Your task to perform on an android device: toggle javascript in the chrome app Image 0: 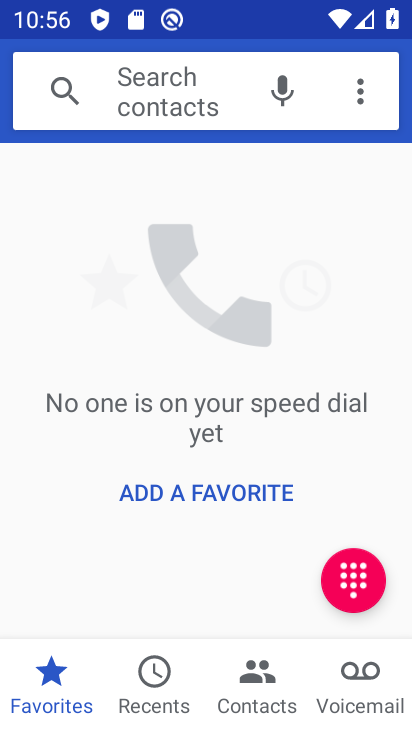
Step 0: press home button
Your task to perform on an android device: toggle javascript in the chrome app Image 1: 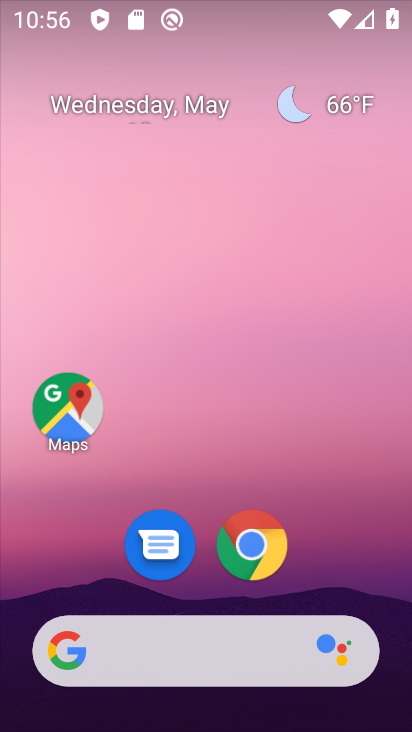
Step 1: click (263, 534)
Your task to perform on an android device: toggle javascript in the chrome app Image 2: 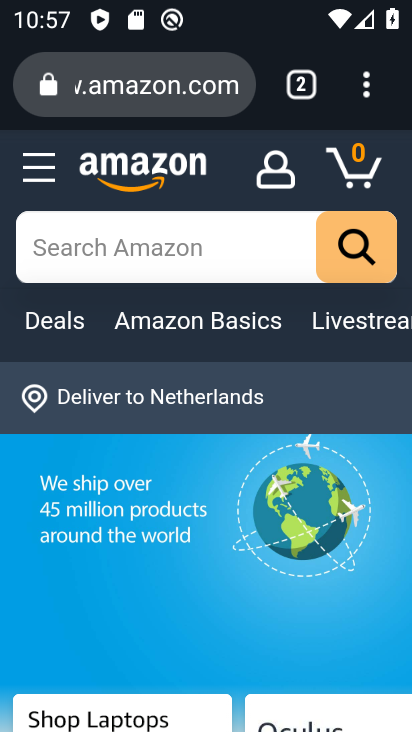
Step 2: click (367, 86)
Your task to perform on an android device: toggle javascript in the chrome app Image 3: 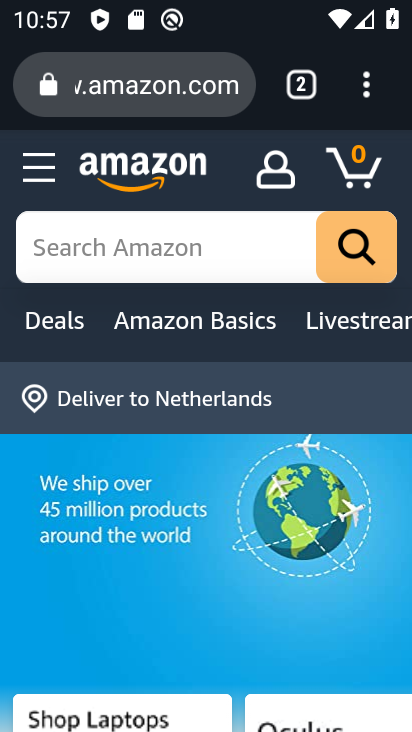
Step 3: click (361, 87)
Your task to perform on an android device: toggle javascript in the chrome app Image 4: 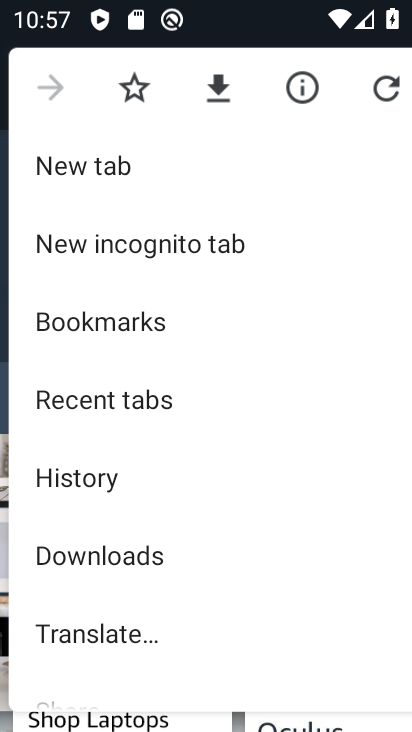
Step 4: drag from (251, 652) to (243, 291)
Your task to perform on an android device: toggle javascript in the chrome app Image 5: 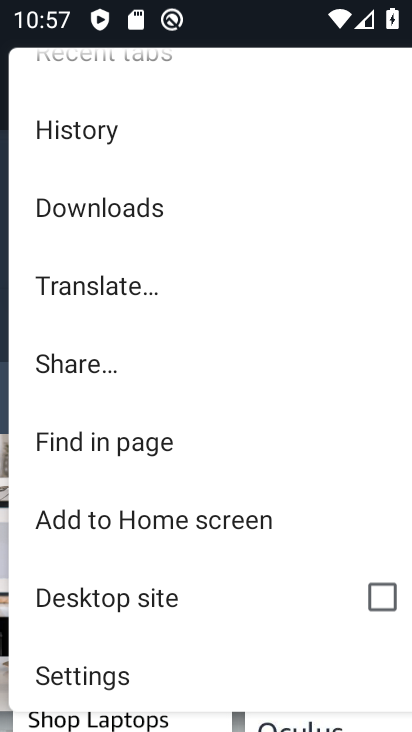
Step 5: click (125, 677)
Your task to perform on an android device: toggle javascript in the chrome app Image 6: 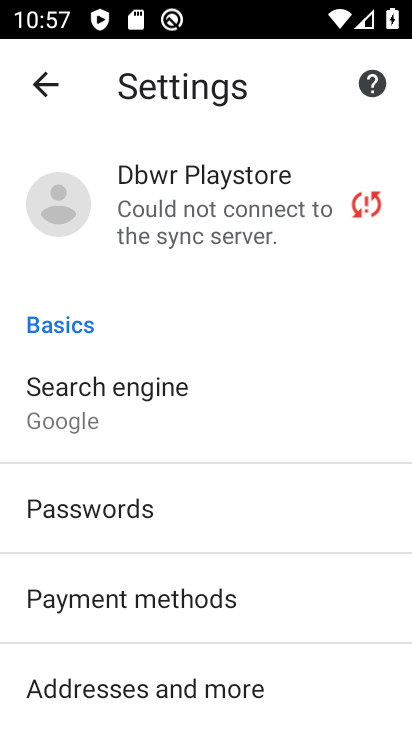
Step 6: drag from (275, 682) to (241, 227)
Your task to perform on an android device: toggle javascript in the chrome app Image 7: 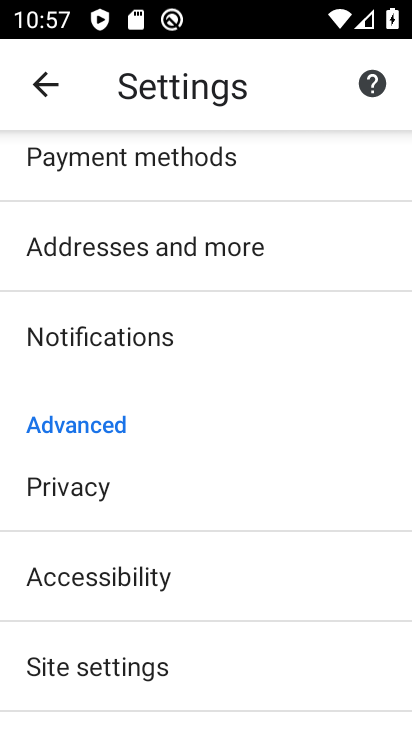
Step 7: click (106, 661)
Your task to perform on an android device: toggle javascript in the chrome app Image 8: 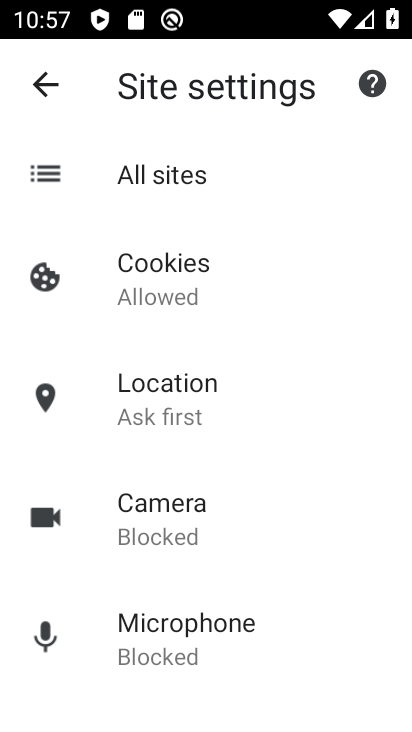
Step 8: drag from (222, 713) to (290, 290)
Your task to perform on an android device: toggle javascript in the chrome app Image 9: 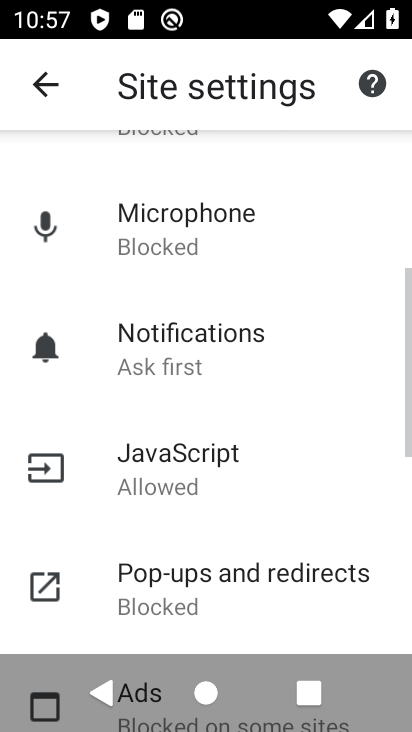
Step 9: click (243, 461)
Your task to perform on an android device: toggle javascript in the chrome app Image 10: 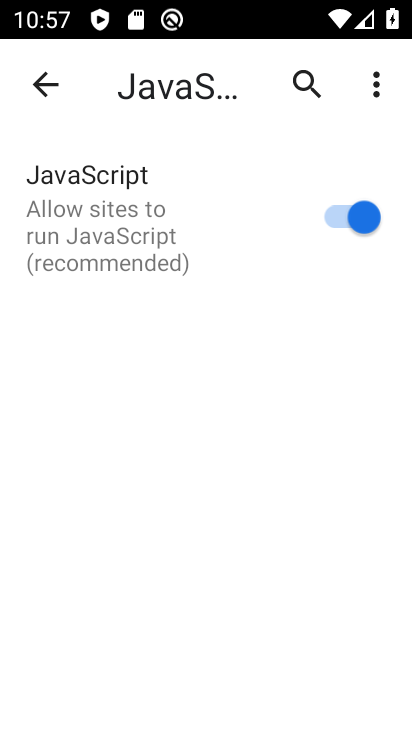
Step 10: click (354, 219)
Your task to perform on an android device: toggle javascript in the chrome app Image 11: 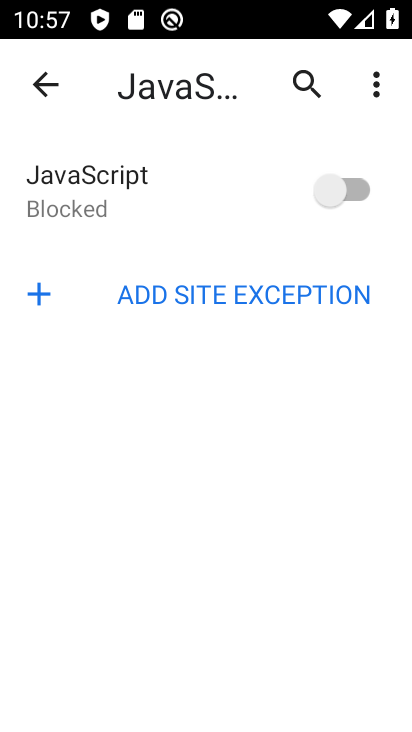
Step 11: task complete